Your task to perform on an android device: change alarm snooze length Image 0: 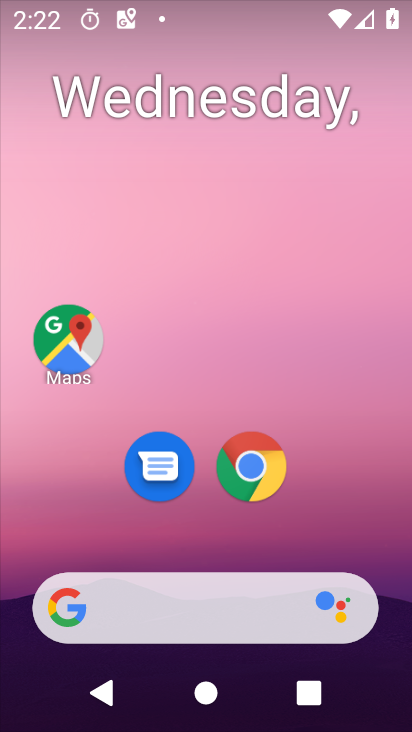
Step 0: drag from (342, 533) to (279, 88)
Your task to perform on an android device: change alarm snooze length Image 1: 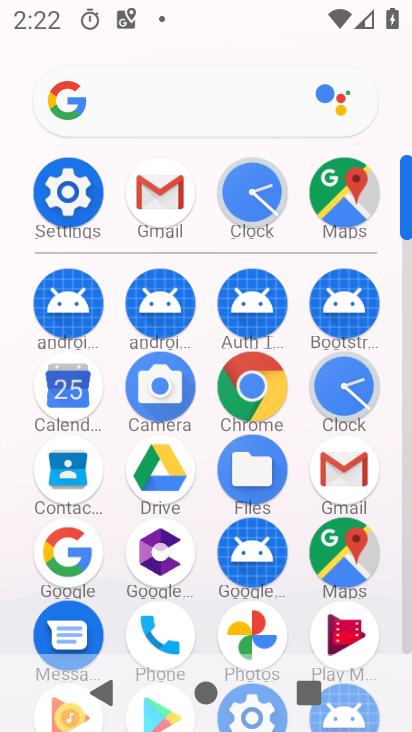
Step 1: click (340, 392)
Your task to perform on an android device: change alarm snooze length Image 2: 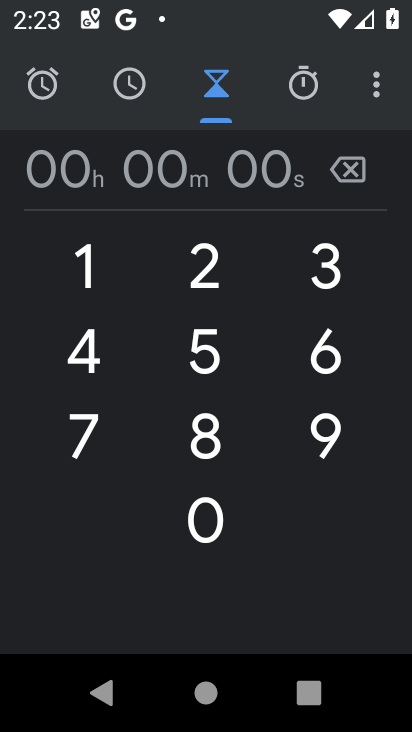
Step 2: click (117, 90)
Your task to perform on an android device: change alarm snooze length Image 3: 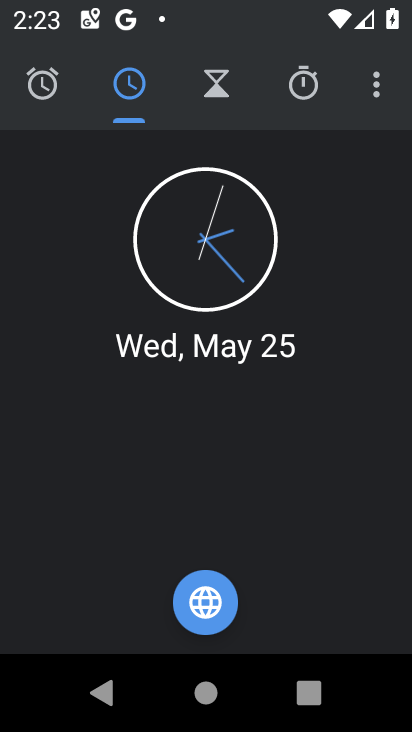
Step 3: click (50, 74)
Your task to perform on an android device: change alarm snooze length Image 4: 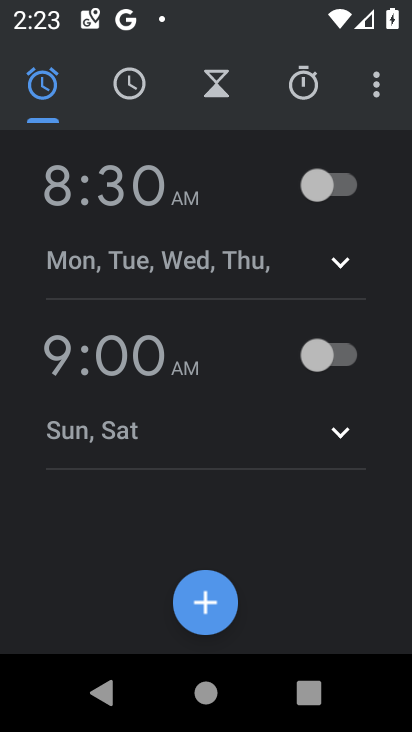
Step 4: click (105, 192)
Your task to perform on an android device: change alarm snooze length Image 5: 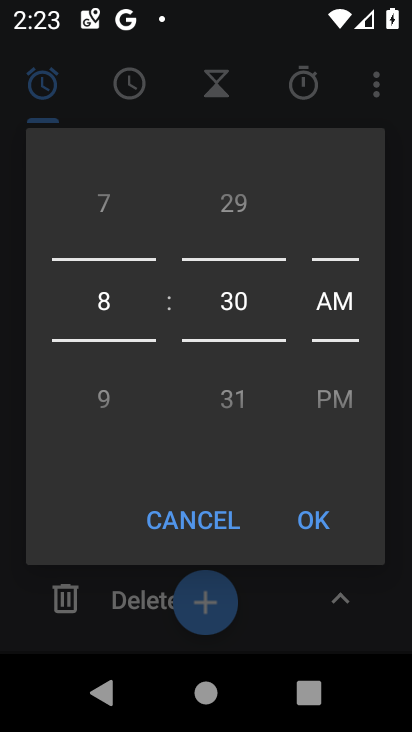
Step 5: click (319, 506)
Your task to perform on an android device: change alarm snooze length Image 6: 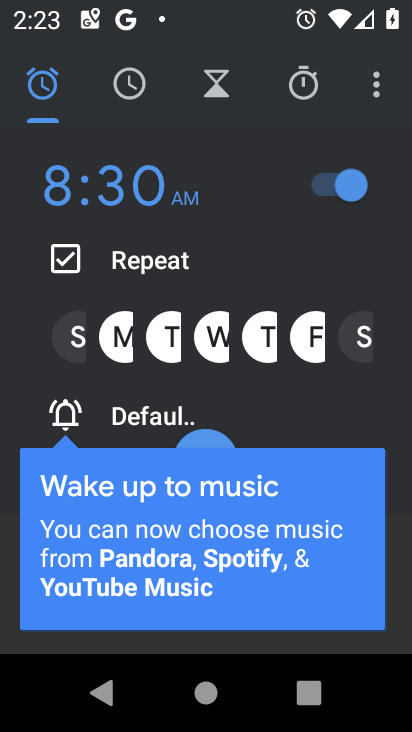
Step 6: drag from (229, 378) to (220, 109)
Your task to perform on an android device: change alarm snooze length Image 7: 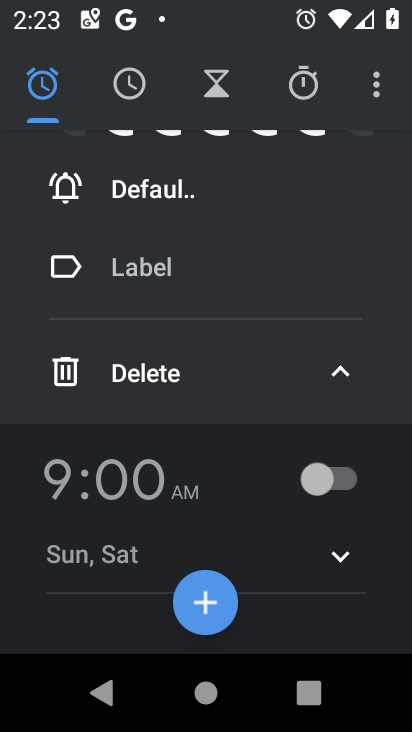
Step 7: drag from (200, 382) to (188, 490)
Your task to perform on an android device: change alarm snooze length Image 8: 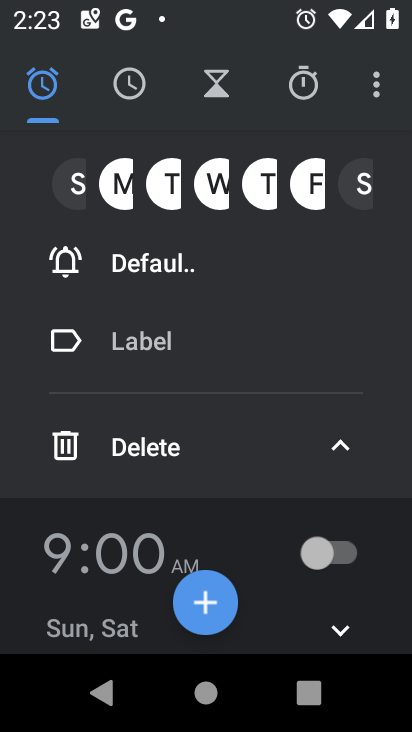
Step 8: click (201, 269)
Your task to perform on an android device: change alarm snooze length Image 9: 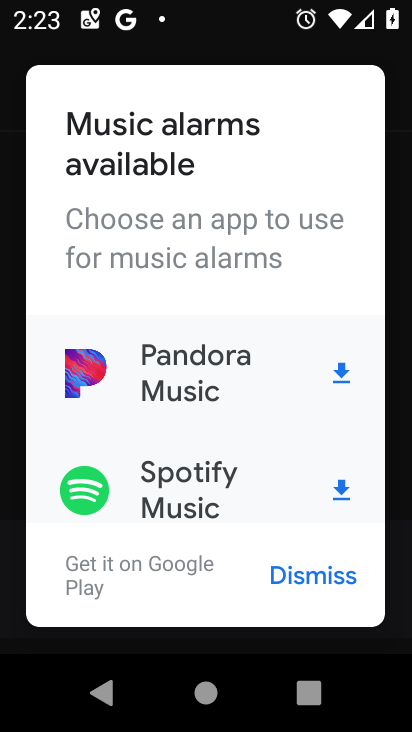
Step 9: click (279, 579)
Your task to perform on an android device: change alarm snooze length Image 10: 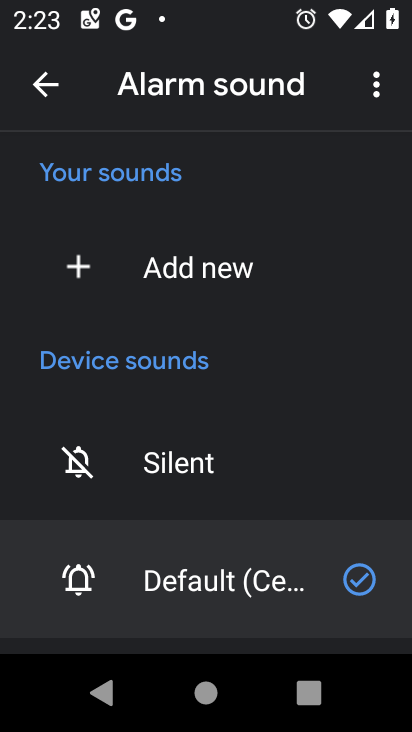
Step 10: task complete